Your task to perform on an android device: Open Android settings Image 0: 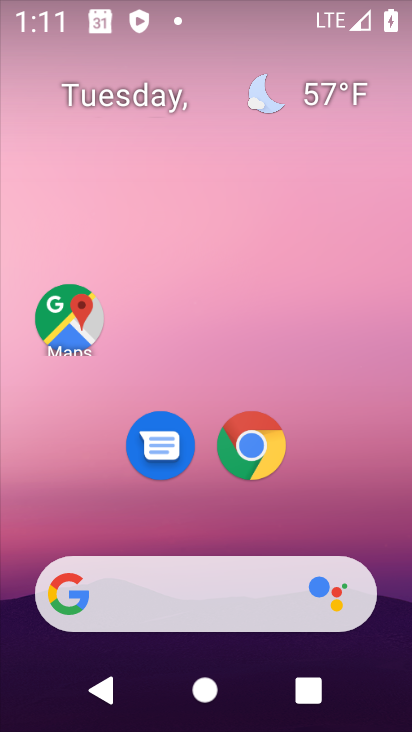
Step 0: drag from (365, 512) to (361, 116)
Your task to perform on an android device: Open Android settings Image 1: 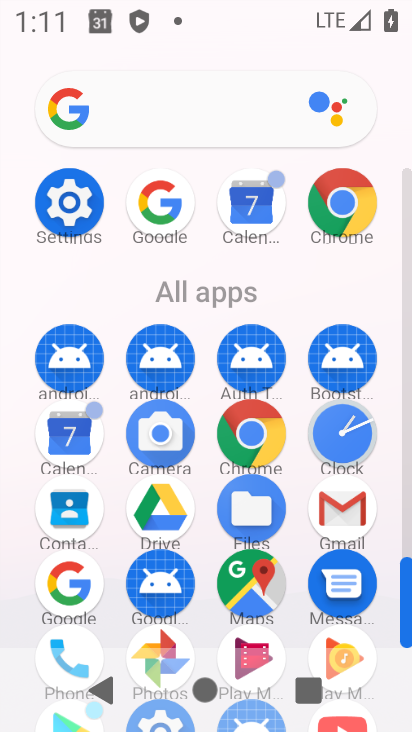
Step 1: click (81, 211)
Your task to perform on an android device: Open Android settings Image 2: 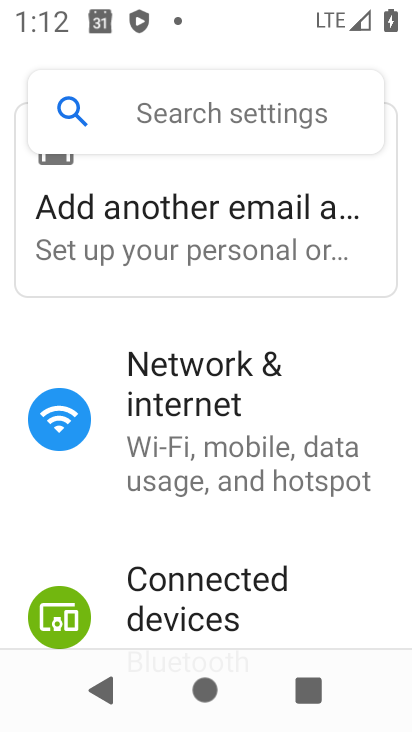
Step 2: drag from (367, 391) to (367, 323)
Your task to perform on an android device: Open Android settings Image 3: 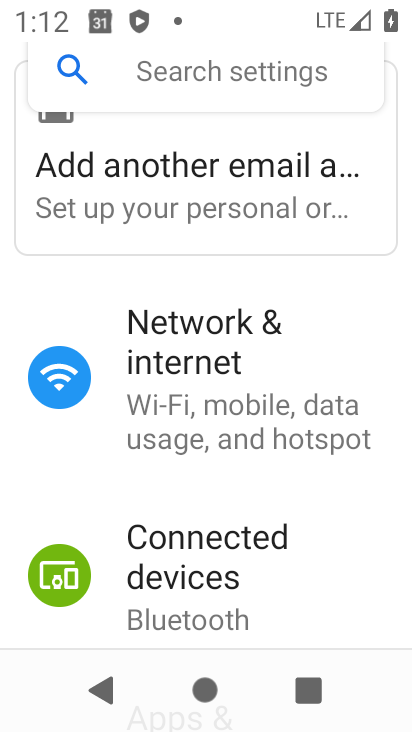
Step 3: drag from (343, 465) to (342, 369)
Your task to perform on an android device: Open Android settings Image 4: 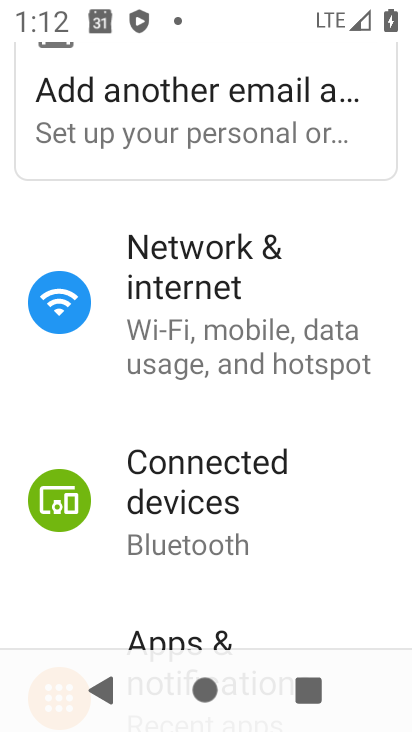
Step 4: drag from (338, 448) to (338, 350)
Your task to perform on an android device: Open Android settings Image 5: 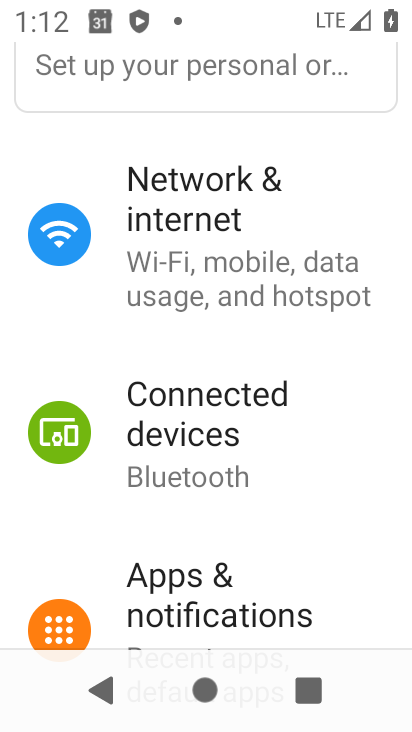
Step 5: drag from (349, 423) to (341, 324)
Your task to perform on an android device: Open Android settings Image 6: 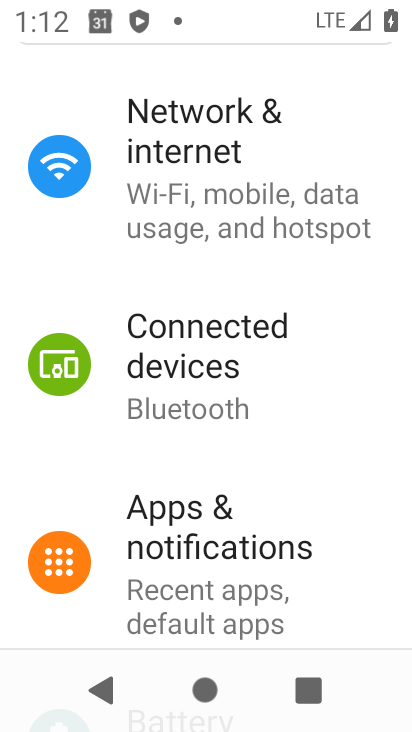
Step 6: drag from (343, 416) to (345, 324)
Your task to perform on an android device: Open Android settings Image 7: 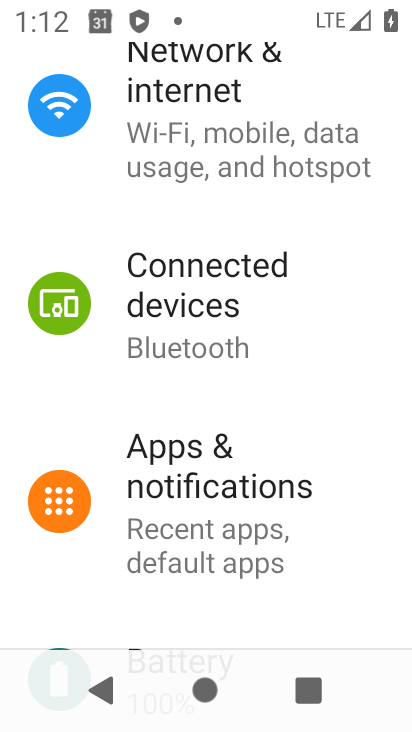
Step 7: drag from (341, 431) to (339, 345)
Your task to perform on an android device: Open Android settings Image 8: 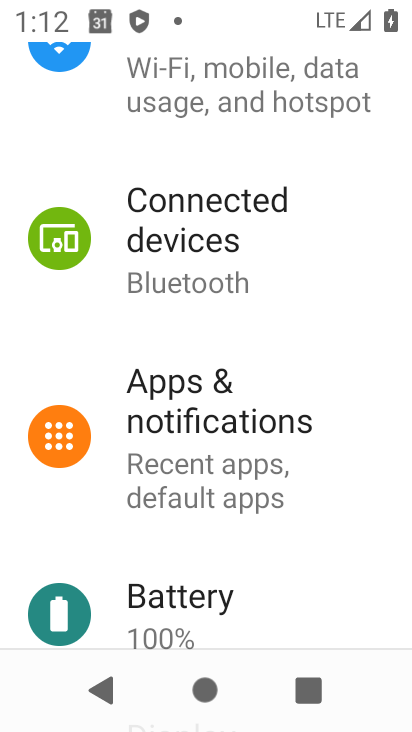
Step 8: drag from (336, 430) to (337, 326)
Your task to perform on an android device: Open Android settings Image 9: 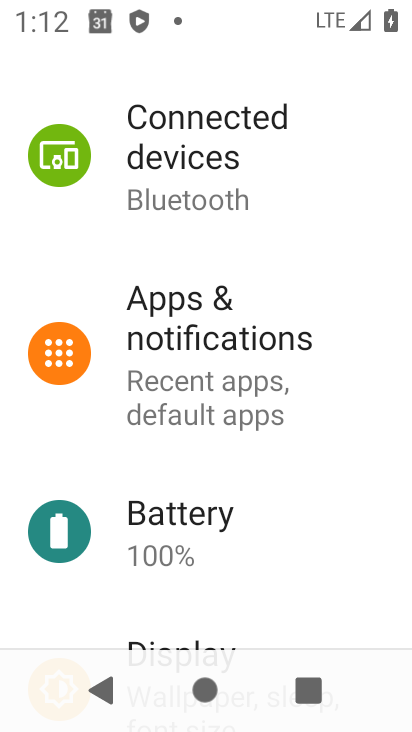
Step 9: drag from (345, 416) to (351, 299)
Your task to perform on an android device: Open Android settings Image 10: 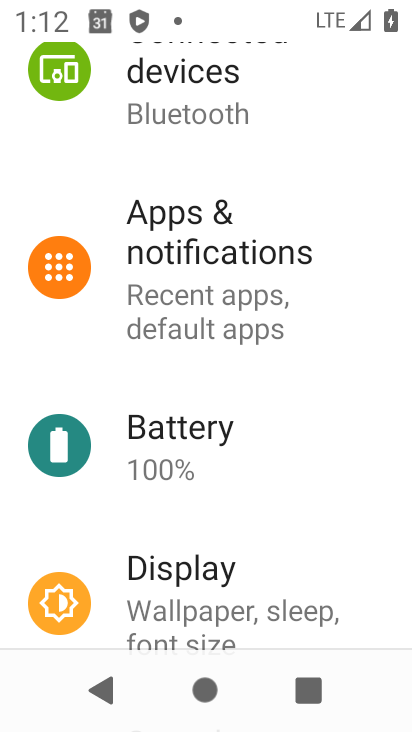
Step 10: drag from (349, 410) to (349, 296)
Your task to perform on an android device: Open Android settings Image 11: 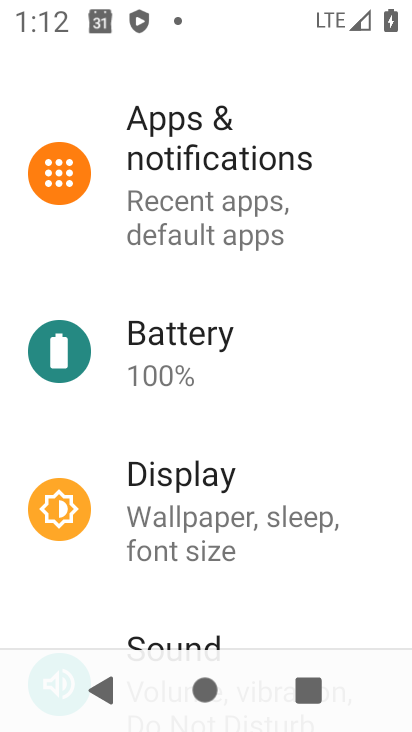
Step 11: drag from (341, 389) to (347, 276)
Your task to perform on an android device: Open Android settings Image 12: 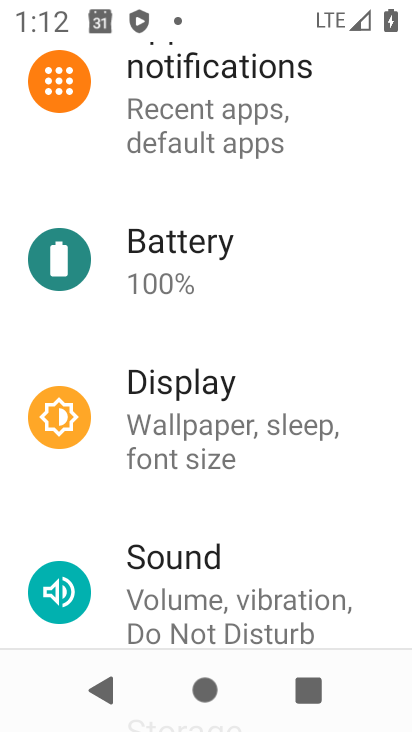
Step 12: drag from (348, 411) to (351, 279)
Your task to perform on an android device: Open Android settings Image 13: 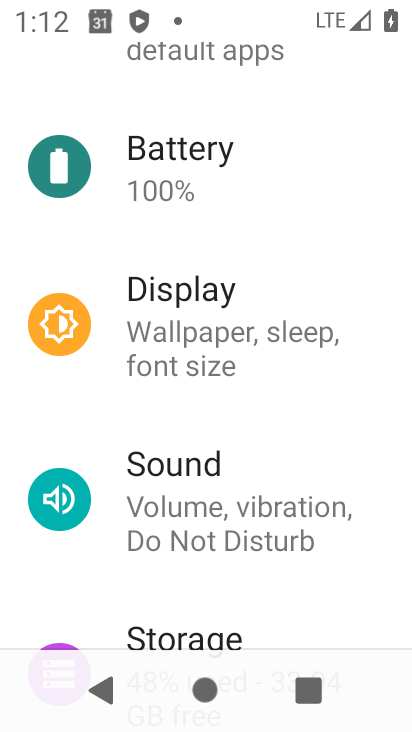
Step 13: drag from (360, 399) to (361, 285)
Your task to perform on an android device: Open Android settings Image 14: 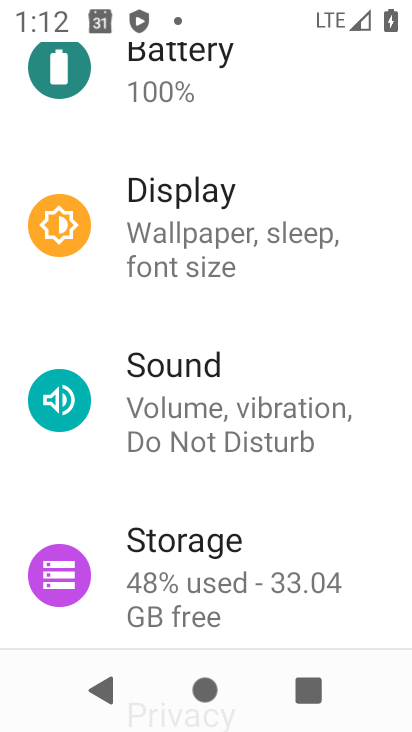
Step 14: drag from (362, 471) to (362, 359)
Your task to perform on an android device: Open Android settings Image 15: 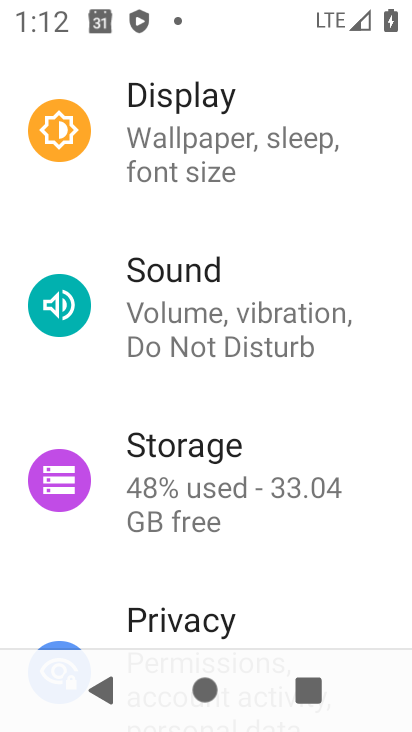
Step 15: drag from (357, 503) to (358, 386)
Your task to perform on an android device: Open Android settings Image 16: 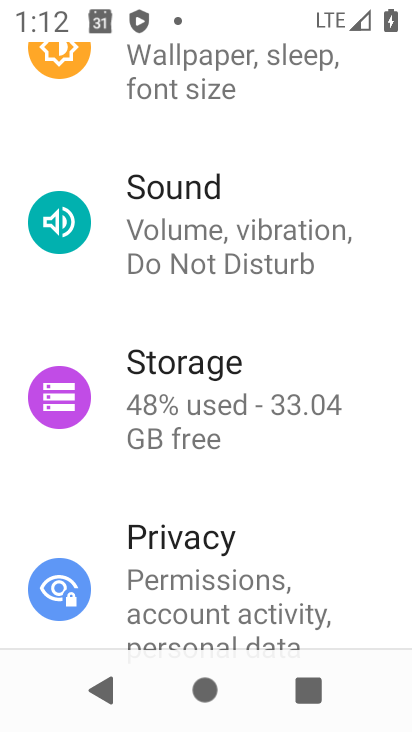
Step 16: drag from (352, 516) to (354, 425)
Your task to perform on an android device: Open Android settings Image 17: 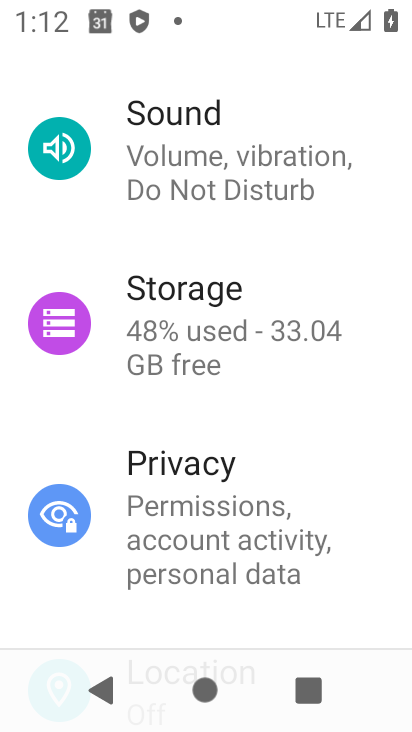
Step 17: drag from (358, 539) to (359, 449)
Your task to perform on an android device: Open Android settings Image 18: 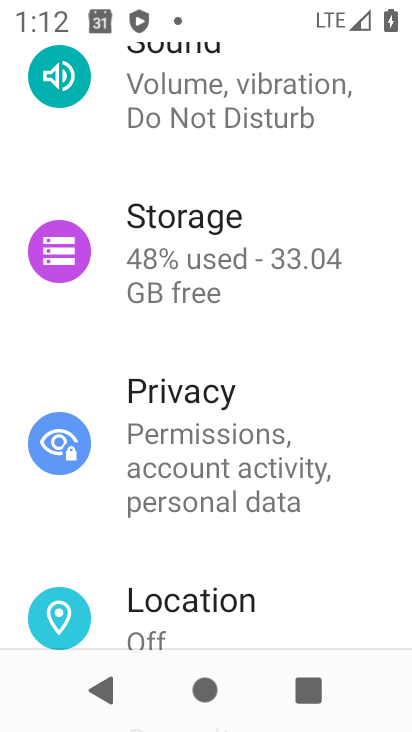
Step 18: drag from (359, 565) to (359, 469)
Your task to perform on an android device: Open Android settings Image 19: 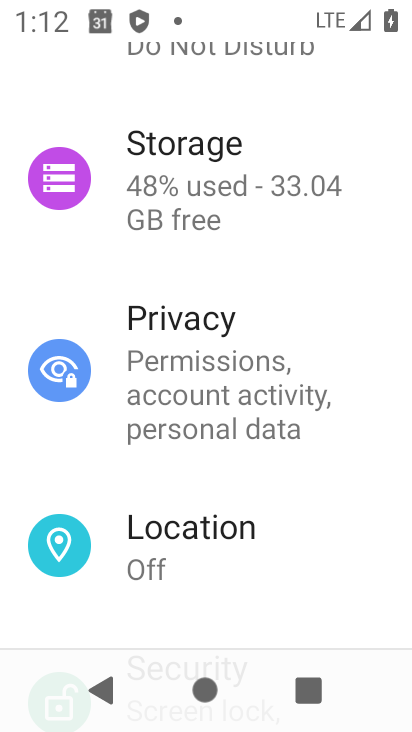
Step 19: drag from (364, 560) to (364, 454)
Your task to perform on an android device: Open Android settings Image 20: 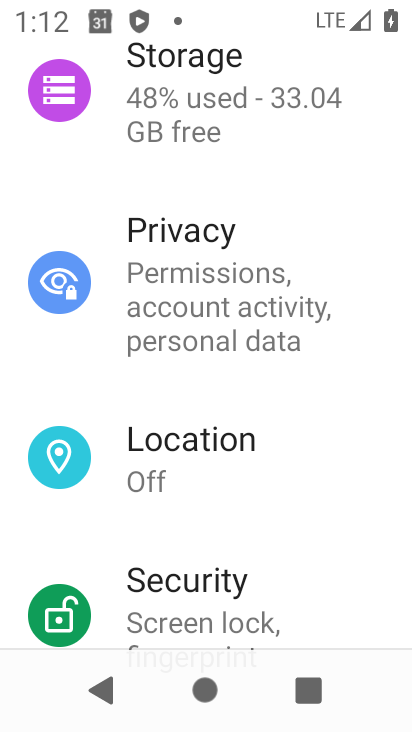
Step 20: drag from (351, 532) to (351, 418)
Your task to perform on an android device: Open Android settings Image 21: 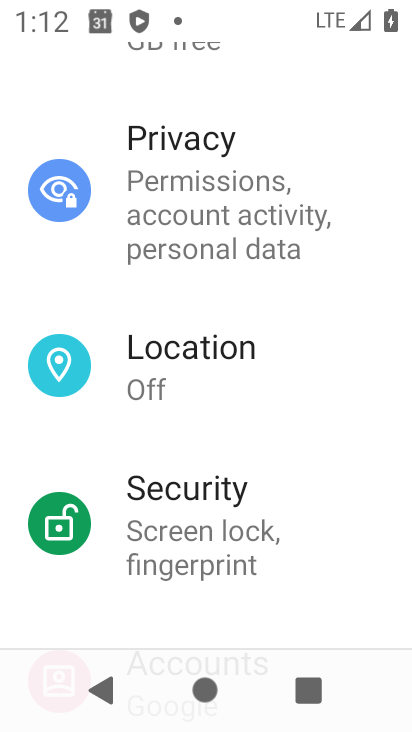
Step 21: drag from (351, 547) to (353, 416)
Your task to perform on an android device: Open Android settings Image 22: 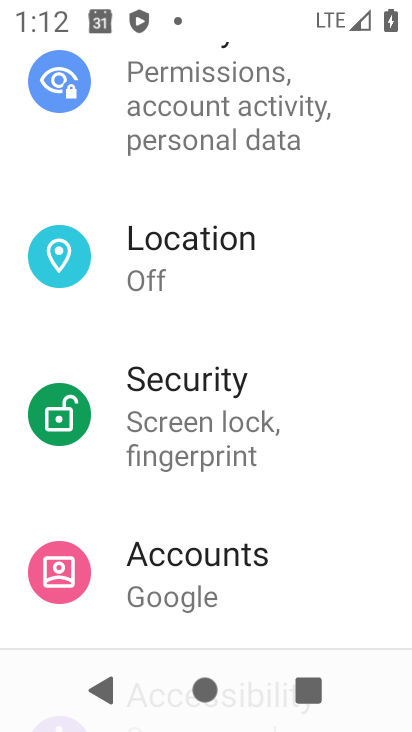
Step 22: drag from (357, 529) to (348, 415)
Your task to perform on an android device: Open Android settings Image 23: 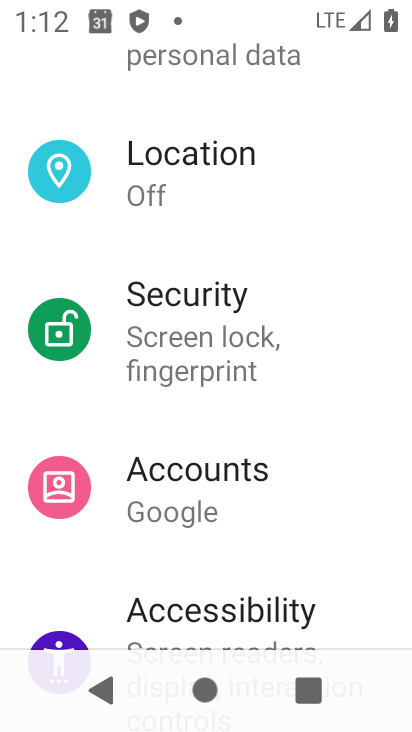
Step 23: drag from (320, 513) to (335, 380)
Your task to perform on an android device: Open Android settings Image 24: 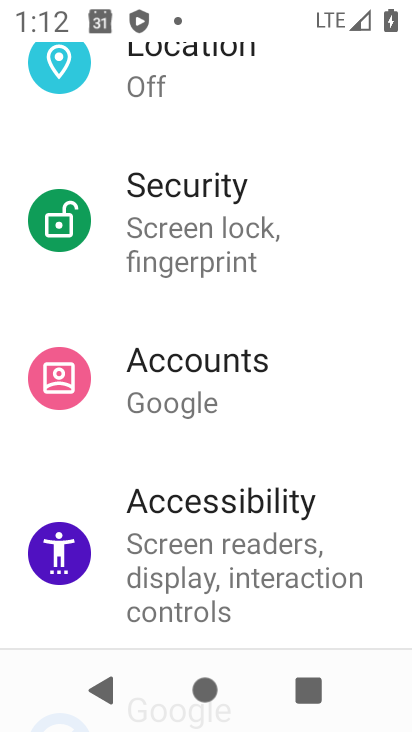
Step 24: drag from (325, 465) to (320, 285)
Your task to perform on an android device: Open Android settings Image 25: 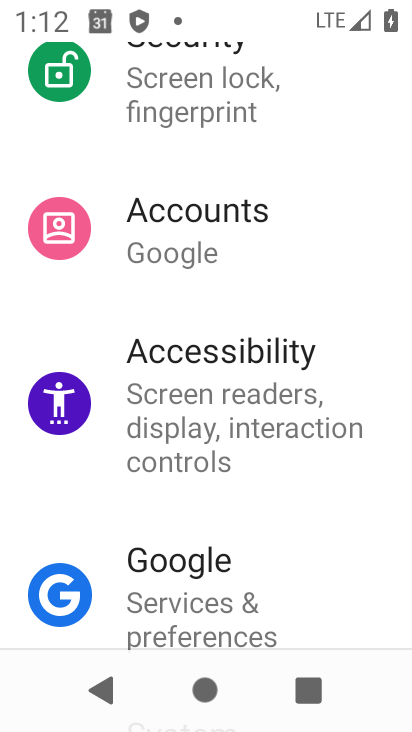
Step 25: drag from (324, 453) to (324, 344)
Your task to perform on an android device: Open Android settings Image 26: 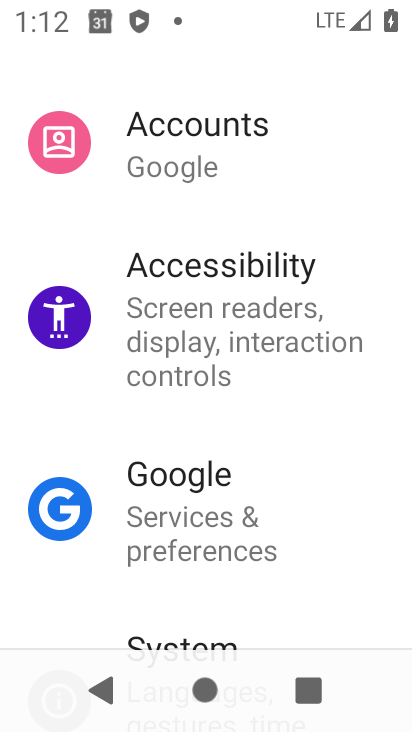
Step 26: drag from (319, 460) to (324, 342)
Your task to perform on an android device: Open Android settings Image 27: 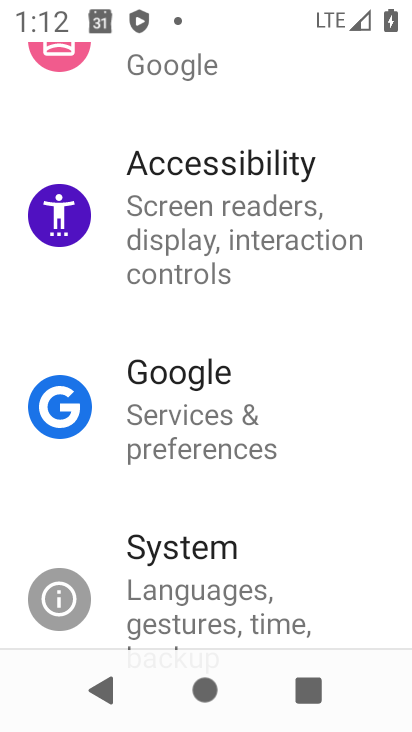
Step 27: drag from (333, 498) to (335, 373)
Your task to perform on an android device: Open Android settings Image 28: 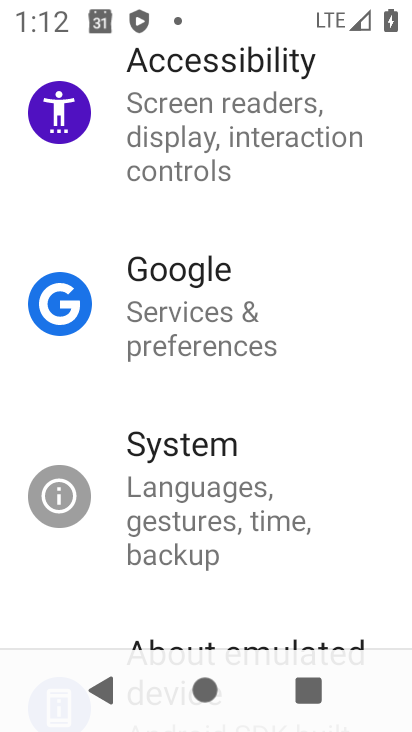
Step 28: click (247, 506)
Your task to perform on an android device: Open Android settings Image 29: 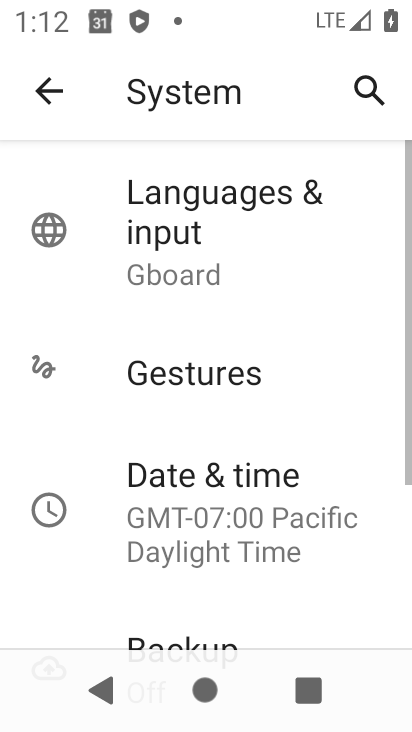
Step 29: drag from (349, 574) to (350, 444)
Your task to perform on an android device: Open Android settings Image 30: 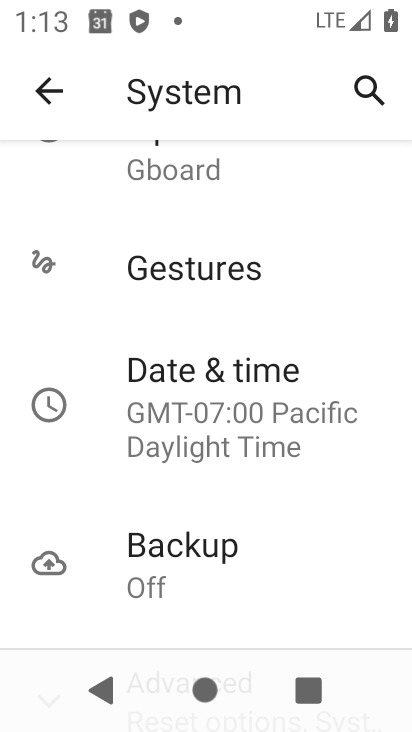
Step 30: drag from (310, 454) to (331, 278)
Your task to perform on an android device: Open Android settings Image 31: 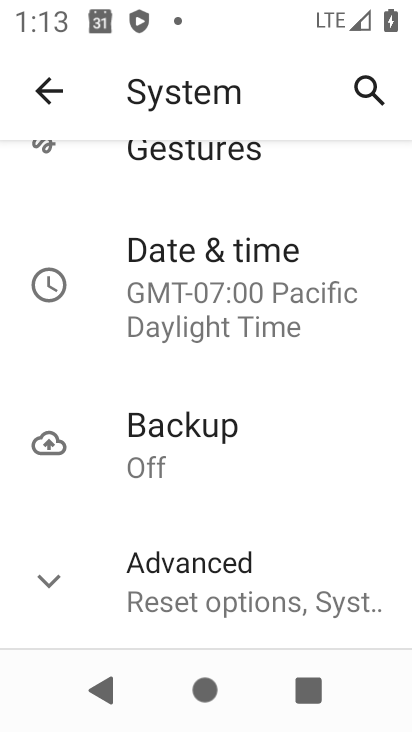
Step 31: click (217, 589)
Your task to perform on an android device: Open Android settings Image 32: 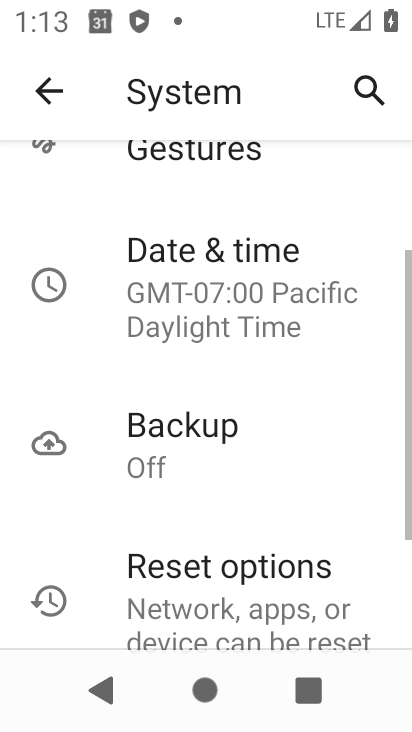
Step 32: task complete